Your task to perform on an android device: refresh tabs in the chrome app Image 0: 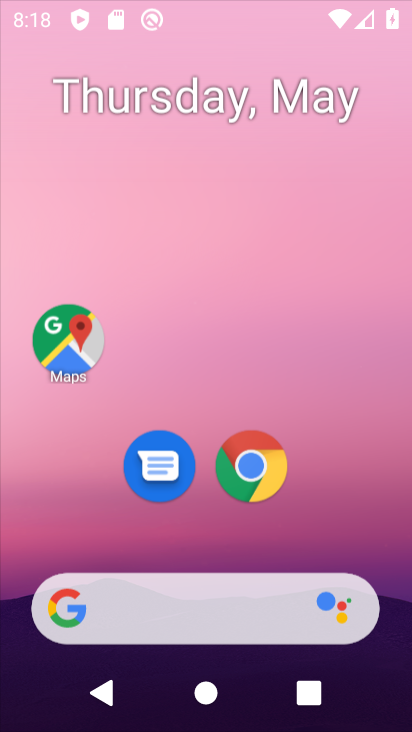
Step 0: click (315, 73)
Your task to perform on an android device: refresh tabs in the chrome app Image 1: 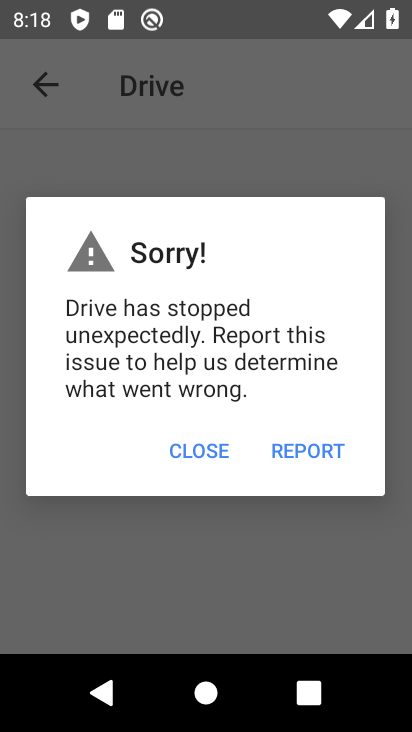
Step 1: press home button
Your task to perform on an android device: refresh tabs in the chrome app Image 2: 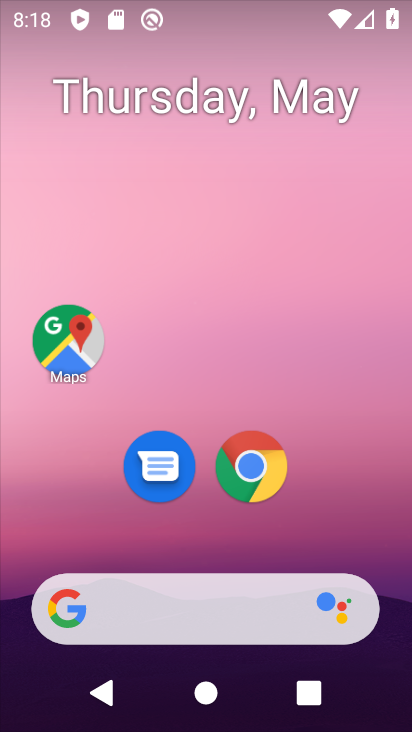
Step 2: drag from (396, 609) to (302, 38)
Your task to perform on an android device: refresh tabs in the chrome app Image 3: 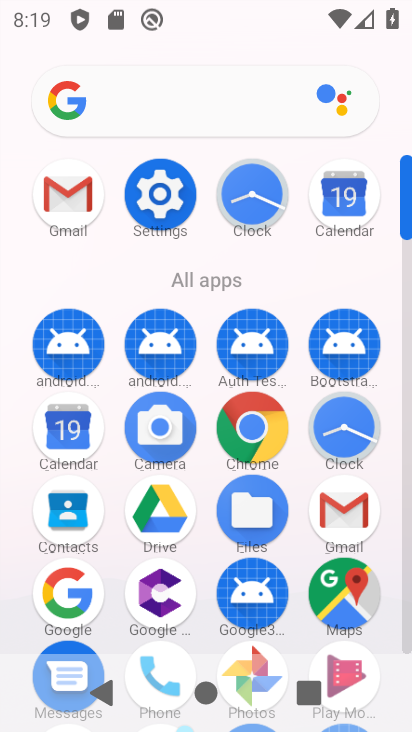
Step 3: click (251, 410)
Your task to perform on an android device: refresh tabs in the chrome app Image 4: 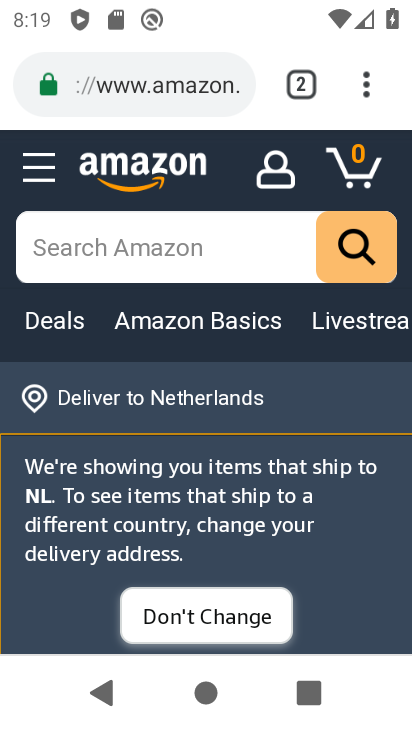
Step 4: click (370, 96)
Your task to perform on an android device: refresh tabs in the chrome app Image 5: 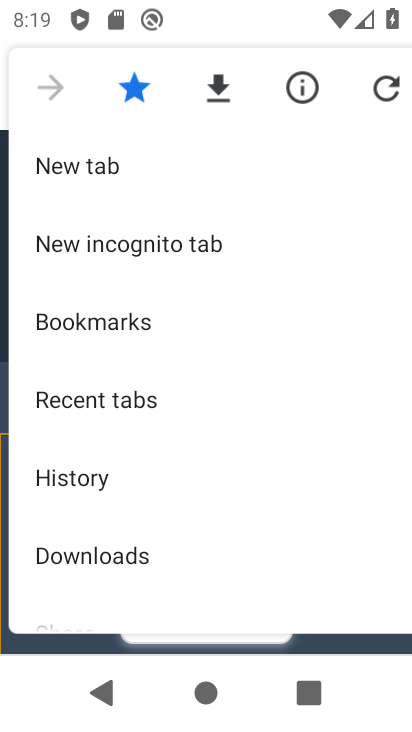
Step 5: click (323, 173)
Your task to perform on an android device: refresh tabs in the chrome app Image 6: 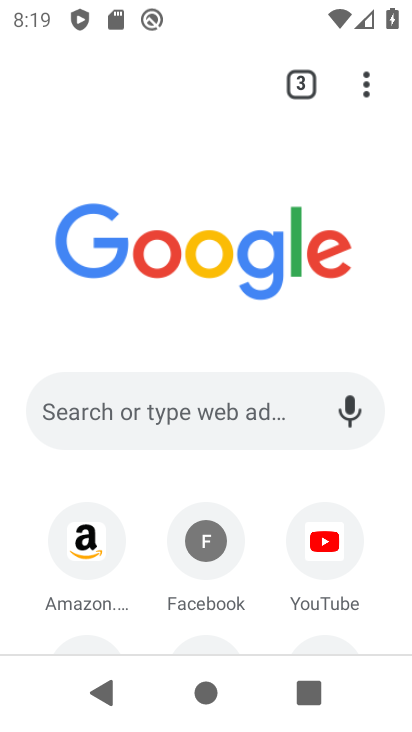
Step 6: task complete